Your task to perform on an android device: Search for sushi restaurants on Maps Image 0: 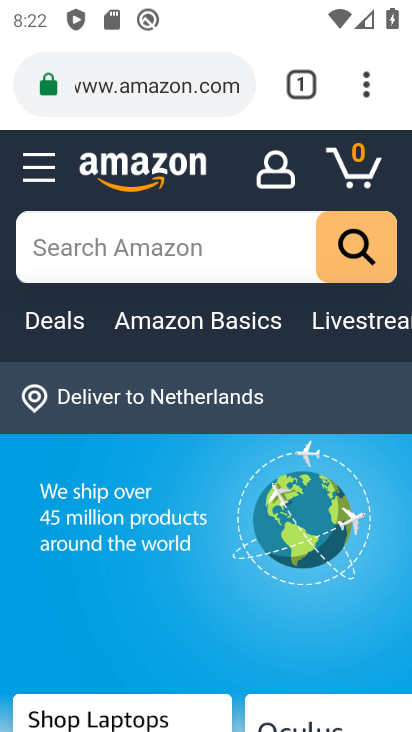
Step 0: press home button
Your task to perform on an android device: Search for sushi restaurants on Maps Image 1: 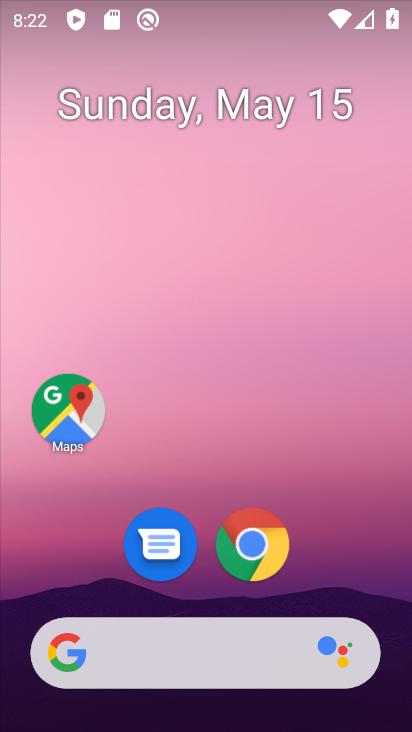
Step 1: click (74, 395)
Your task to perform on an android device: Search for sushi restaurants on Maps Image 2: 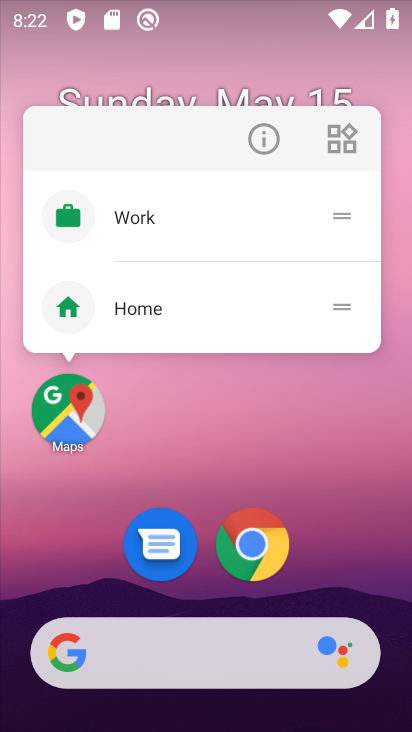
Step 2: click (77, 396)
Your task to perform on an android device: Search for sushi restaurants on Maps Image 3: 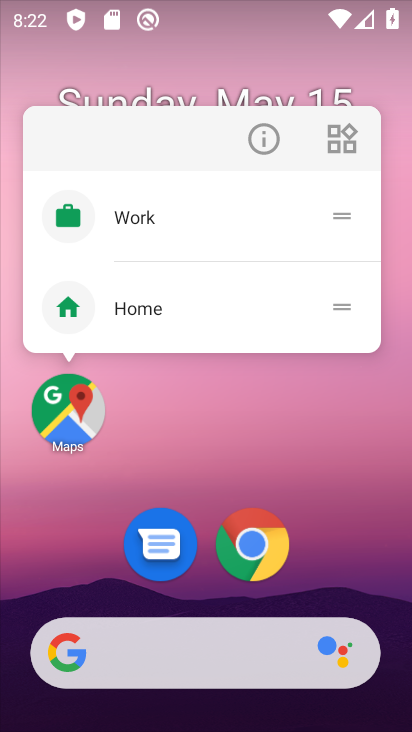
Step 3: click (81, 399)
Your task to perform on an android device: Search for sushi restaurants on Maps Image 4: 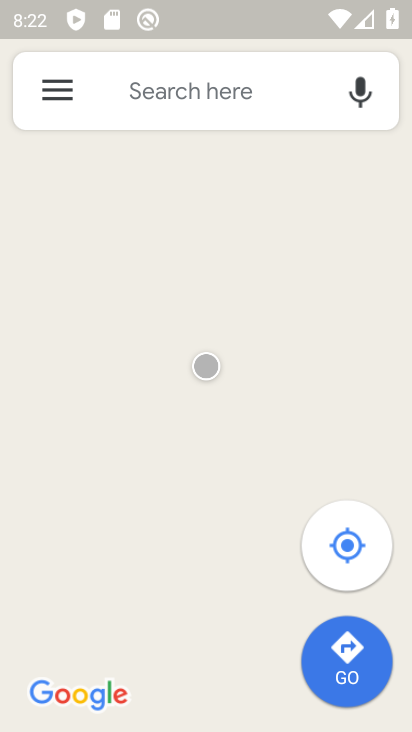
Step 4: click (187, 90)
Your task to perform on an android device: Search for sushi restaurants on Maps Image 5: 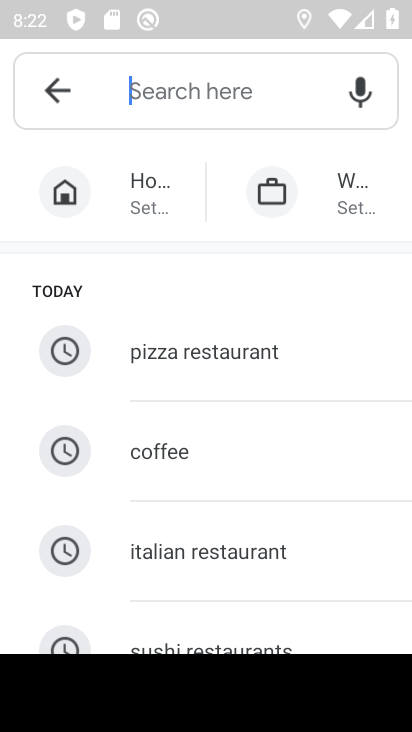
Step 5: type "sushi restaurants"
Your task to perform on an android device: Search for sushi restaurants on Maps Image 6: 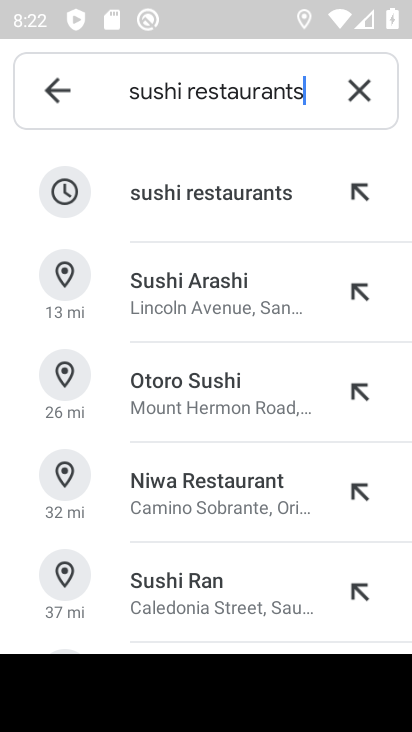
Step 6: click (235, 205)
Your task to perform on an android device: Search for sushi restaurants on Maps Image 7: 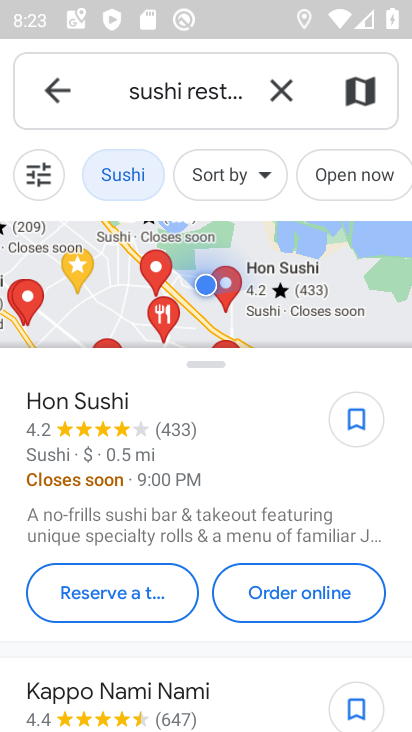
Step 7: task complete